Your task to perform on an android device: Go to Amazon Image 0: 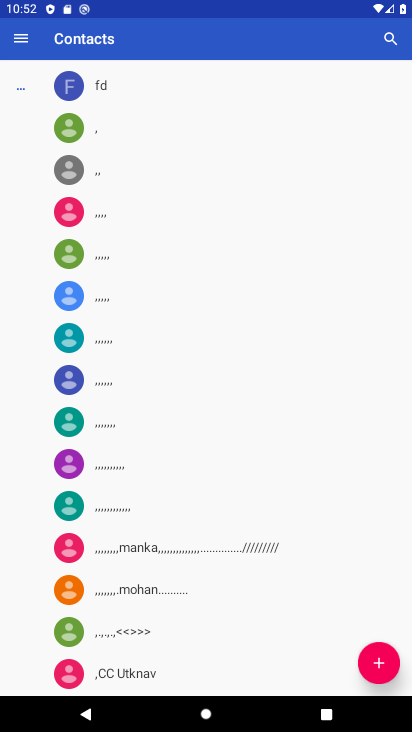
Step 0: press home button
Your task to perform on an android device: Go to Amazon Image 1: 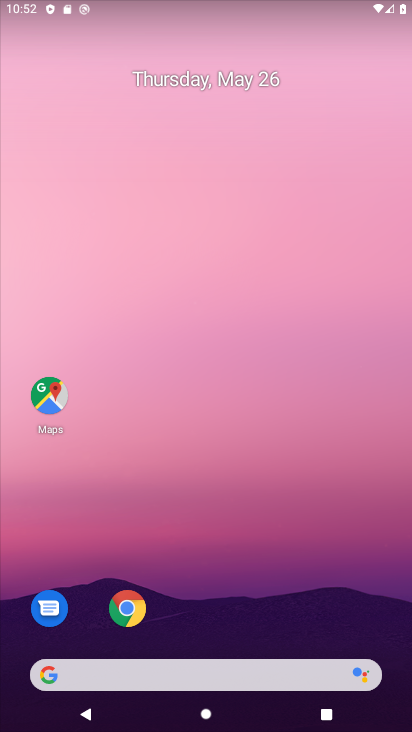
Step 1: click (132, 605)
Your task to perform on an android device: Go to Amazon Image 2: 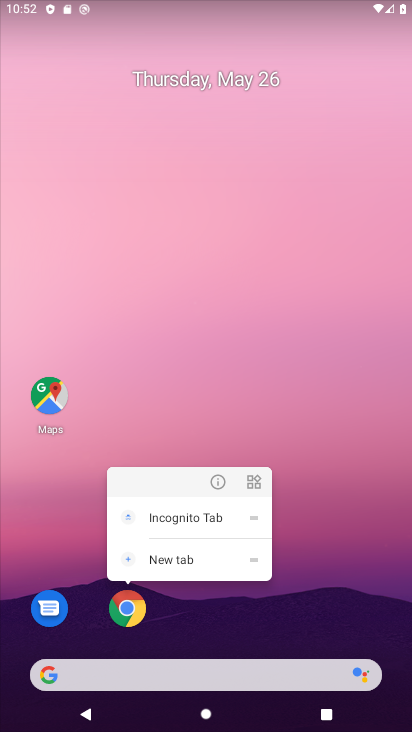
Step 2: click (129, 605)
Your task to perform on an android device: Go to Amazon Image 3: 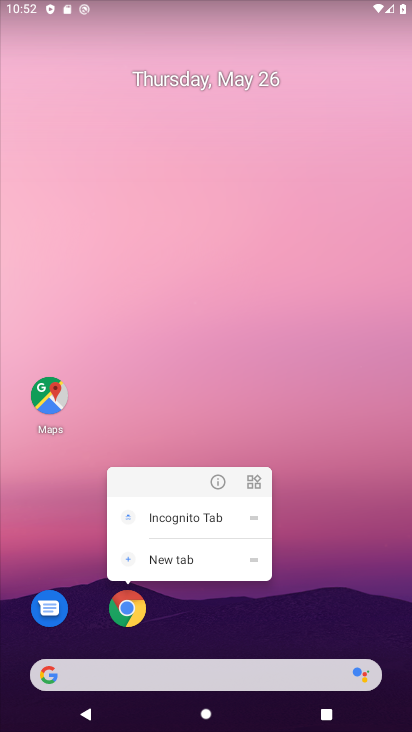
Step 3: click (115, 614)
Your task to perform on an android device: Go to Amazon Image 4: 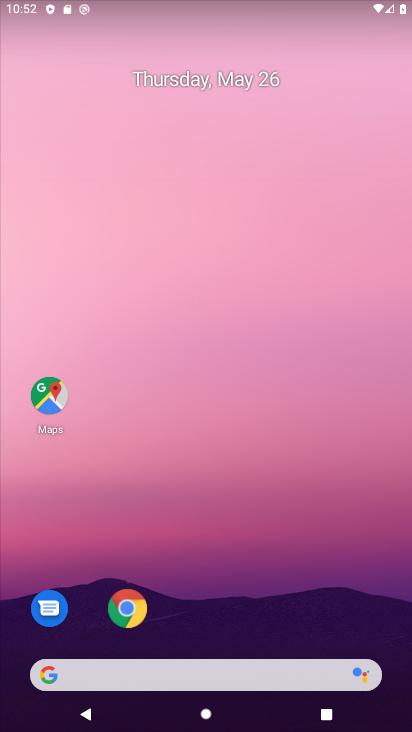
Step 4: click (124, 608)
Your task to perform on an android device: Go to Amazon Image 5: 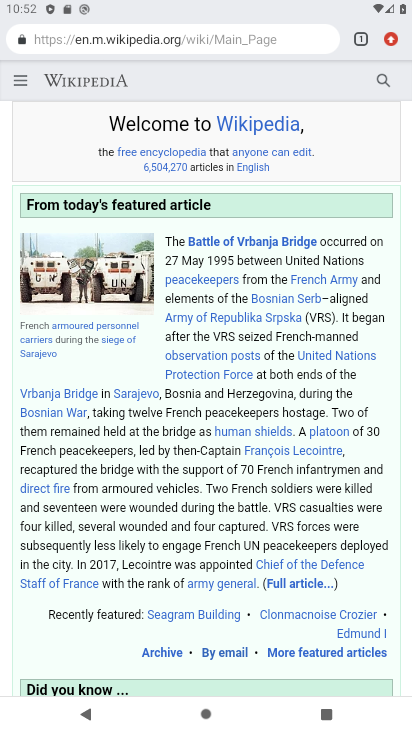
Step 5: click (209, 40)
Your task to perform on an android device: Go to Amazon Image 6: 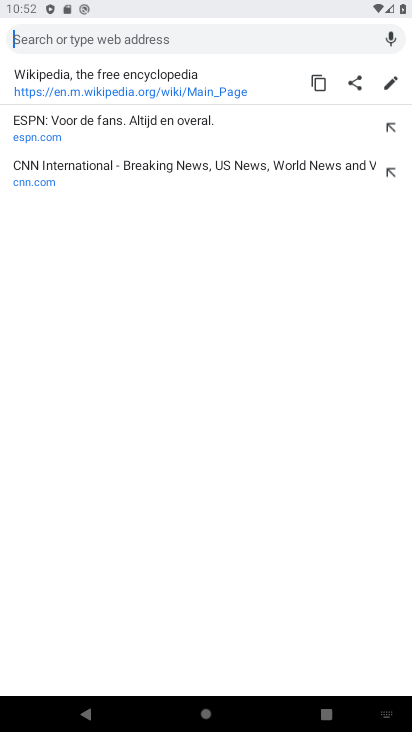
Step 6: type "amazon"
Your task to perform on an android device: Go to Amazon Image 7: 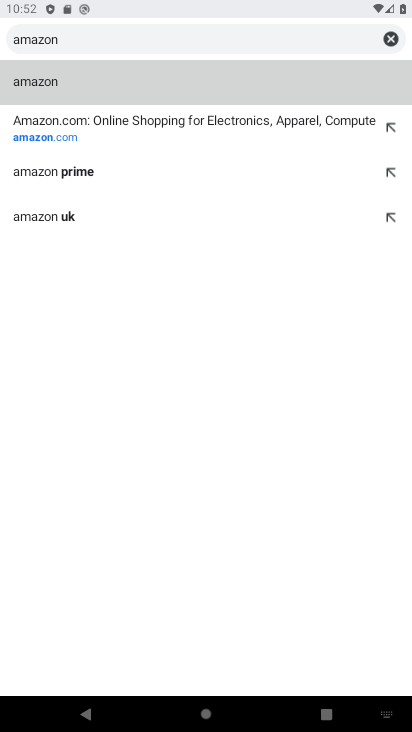
Step 7: click (32, 135)
Your task to perform on an android device: Go to Amazon Image 8: 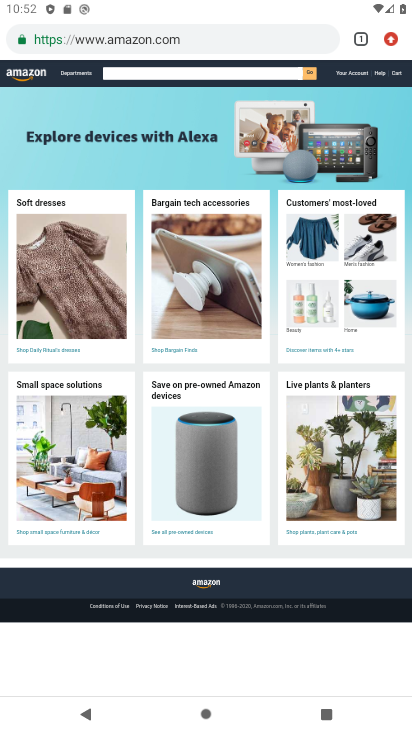
Step 8: task complete